Your task to perform on an android device: Open CNN.com Image 0: 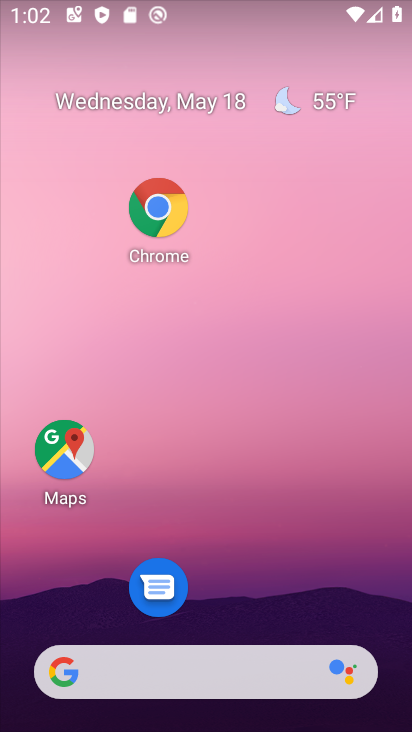
Step 0: click (161, 263)
Your task to perform on an android device: Open CNN.com Image 1: 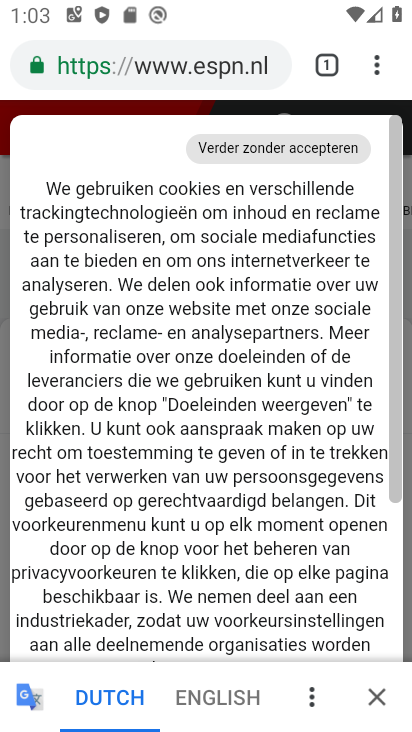
Step 1: type "www.cnn.com"
Your task to perform on an android device: Open CNN.com Image 2: 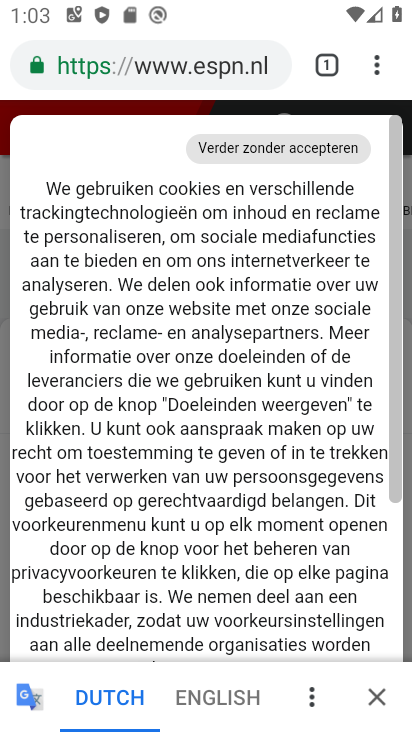
Step 2: click (215, 68)
Your task to perform on an android device: Open CNN.com Image 3: 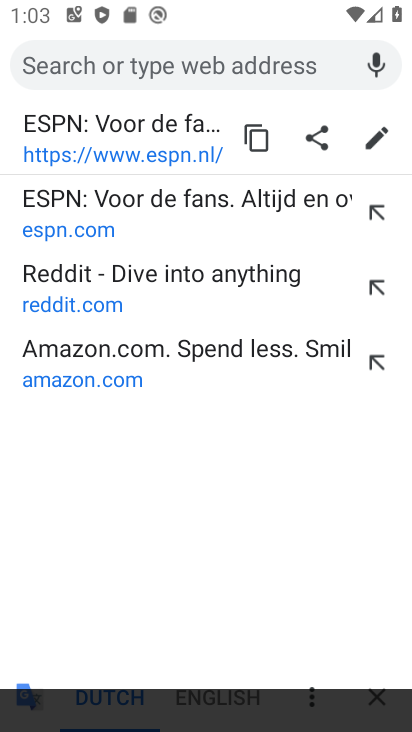
Step 3: click (189, 70)
Your task to perform on an android device: Open CNN.com Image 4: 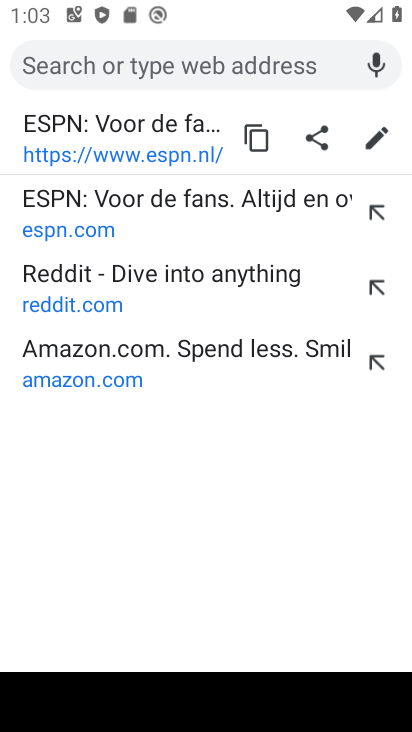
Step 4: click (189, 70)
Your task to perform on an android device: Open CNN.com Image 5: 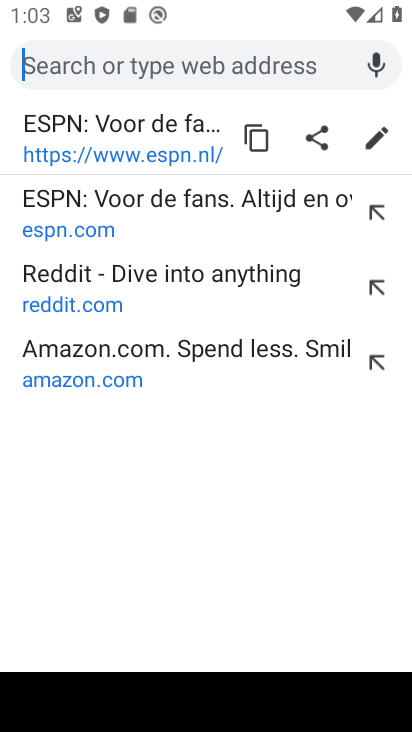
Step 5: type "www.cnn.com"
Your task to perform on an android device: Open CNN.com Image 6: 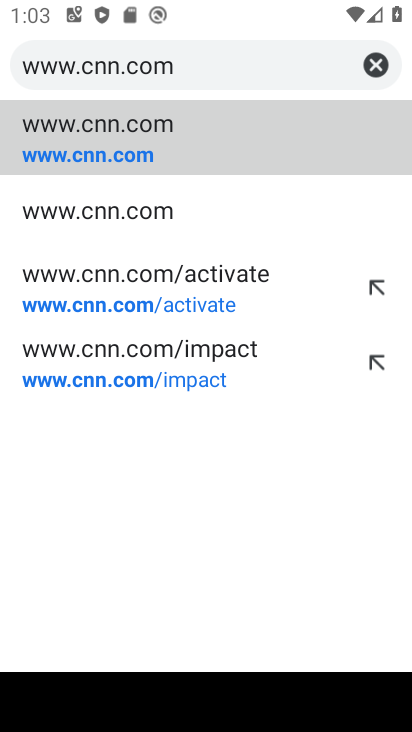
Step 6: click (132, 154)
Your task to perform on an android device: Open CNN.com Image 7: 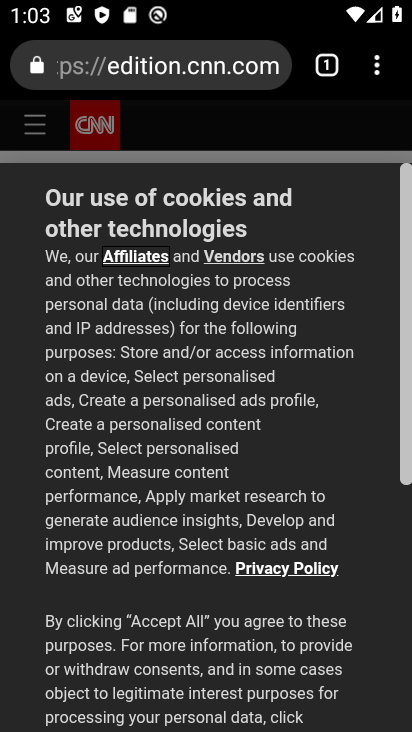
Step 7: task complete